Your task to perform on an android device: Open maps Image 0: 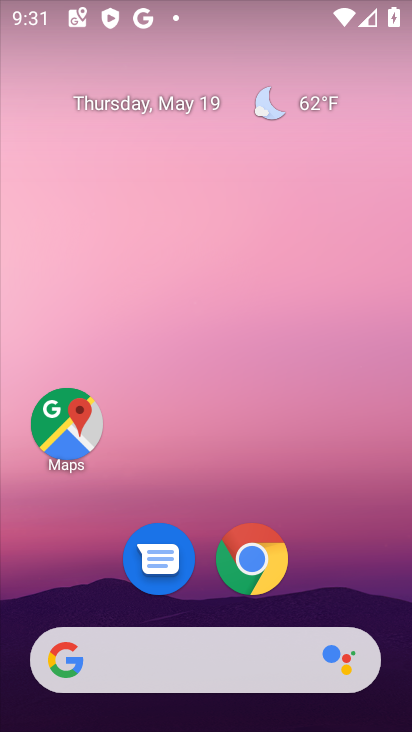
Step 0: click (70, 406)
Your task to perform on an android device: Open maps Image 1: 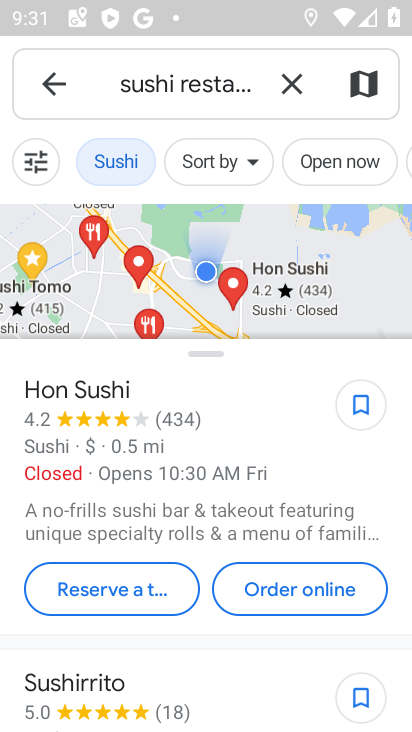
Step 1: task complete